Your task to perform on an android device: Empty the shopping cart on bestbuy.com. Search for "dell alienware" on bestbuy.com, select the first entry, and add it to the cart. Image 0: 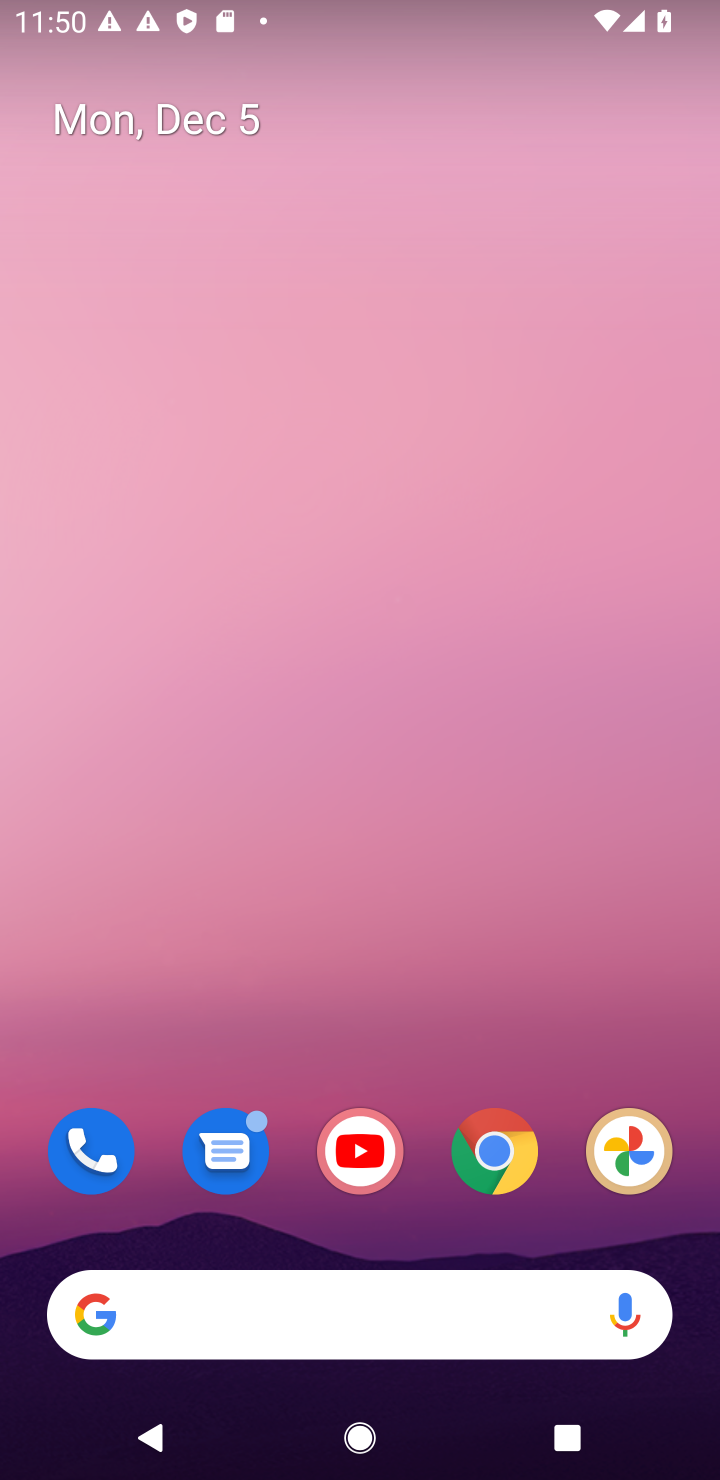
Step 0: click (492, 1160)
Your task to perform on an android device: Empty the shopping cart on bestbuy.com. Search for "dell alienware" on bestbuy.com, select the first entry, and add it to the cart. Image 1: 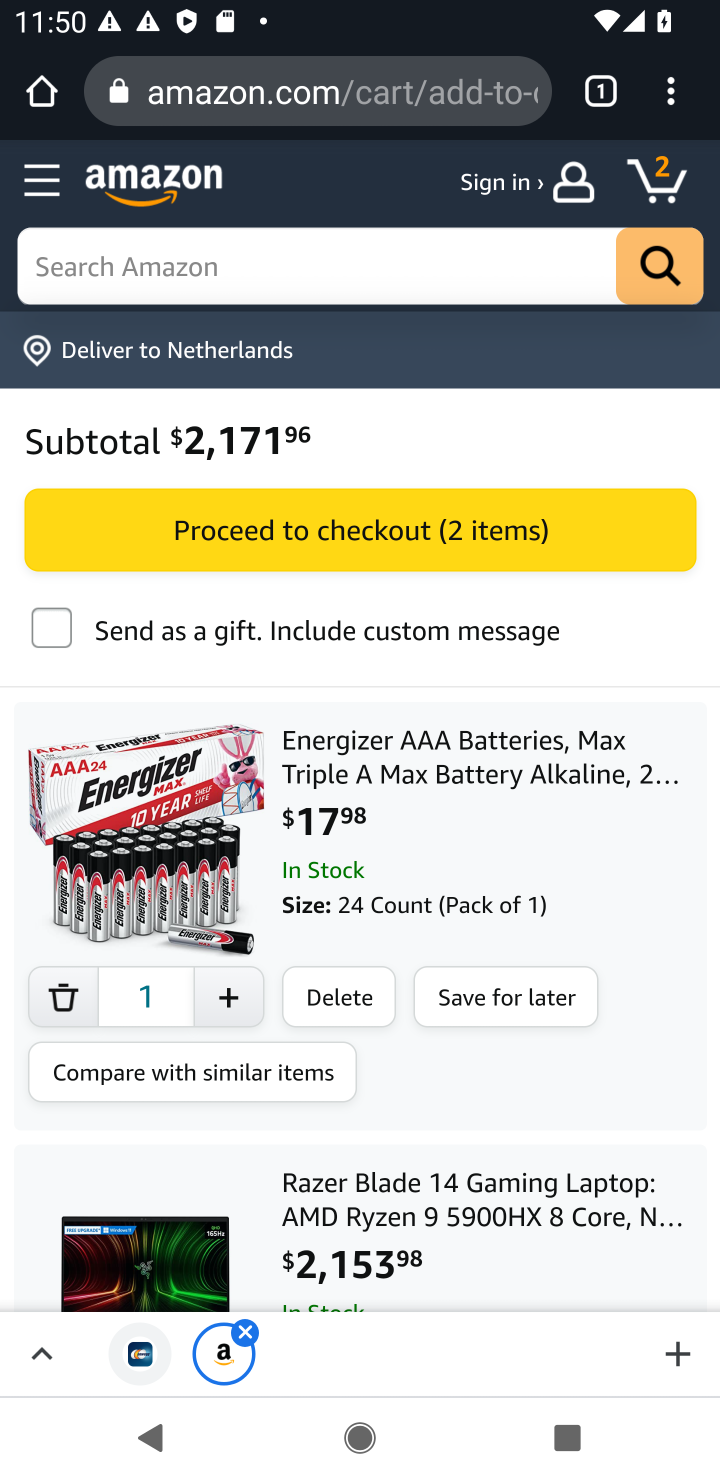
Step 1: click (250, 85)
Your task to perform on an android device: Empty the shopping cart on bestbuy.com. Search for "dell alienware" on bestbuy.com, select the first entry, and add it to the cart. Image 2: 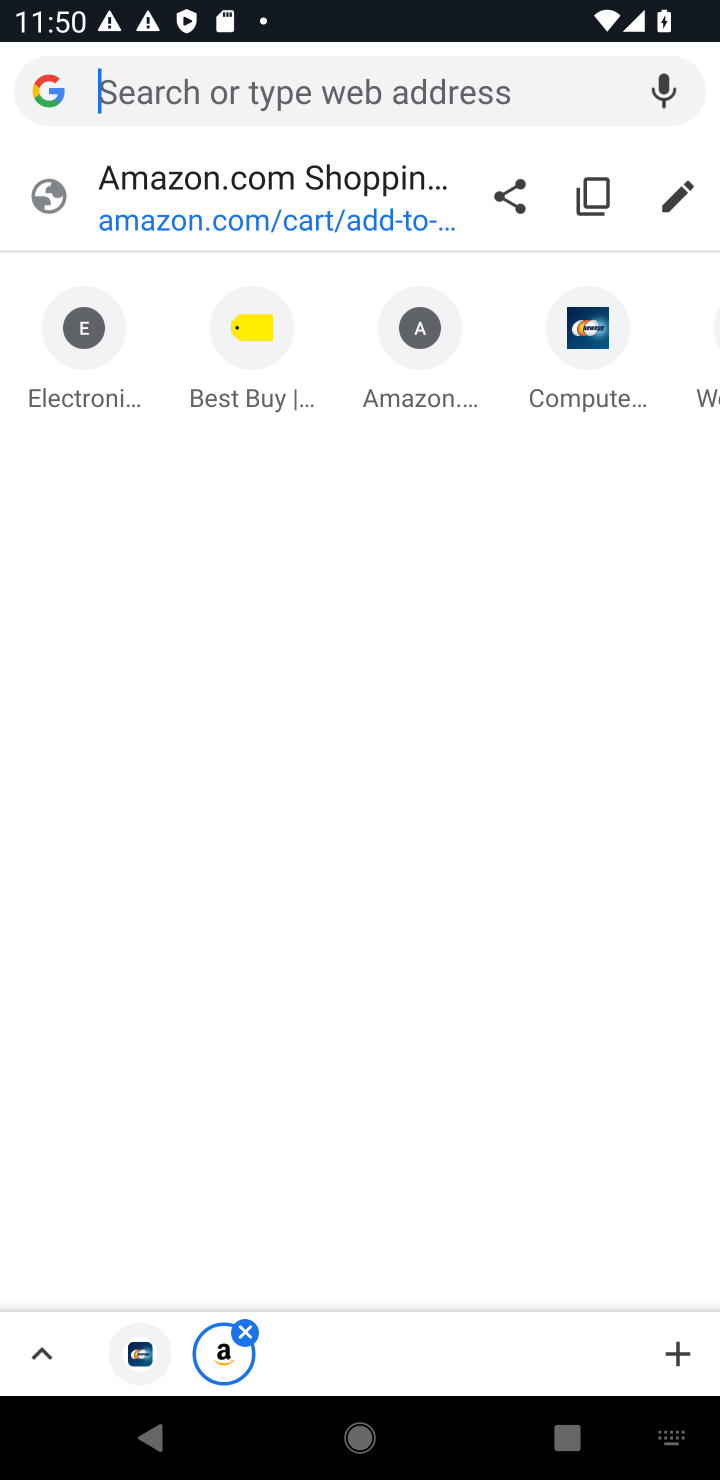
Step 2: click (243, 355)
Your task to perform on an android device: Empty the shopping cart on bestbuy.com. Search for "dell alienware" on bestbuy.com, select the first entry, and add it to the cart. Image 3: 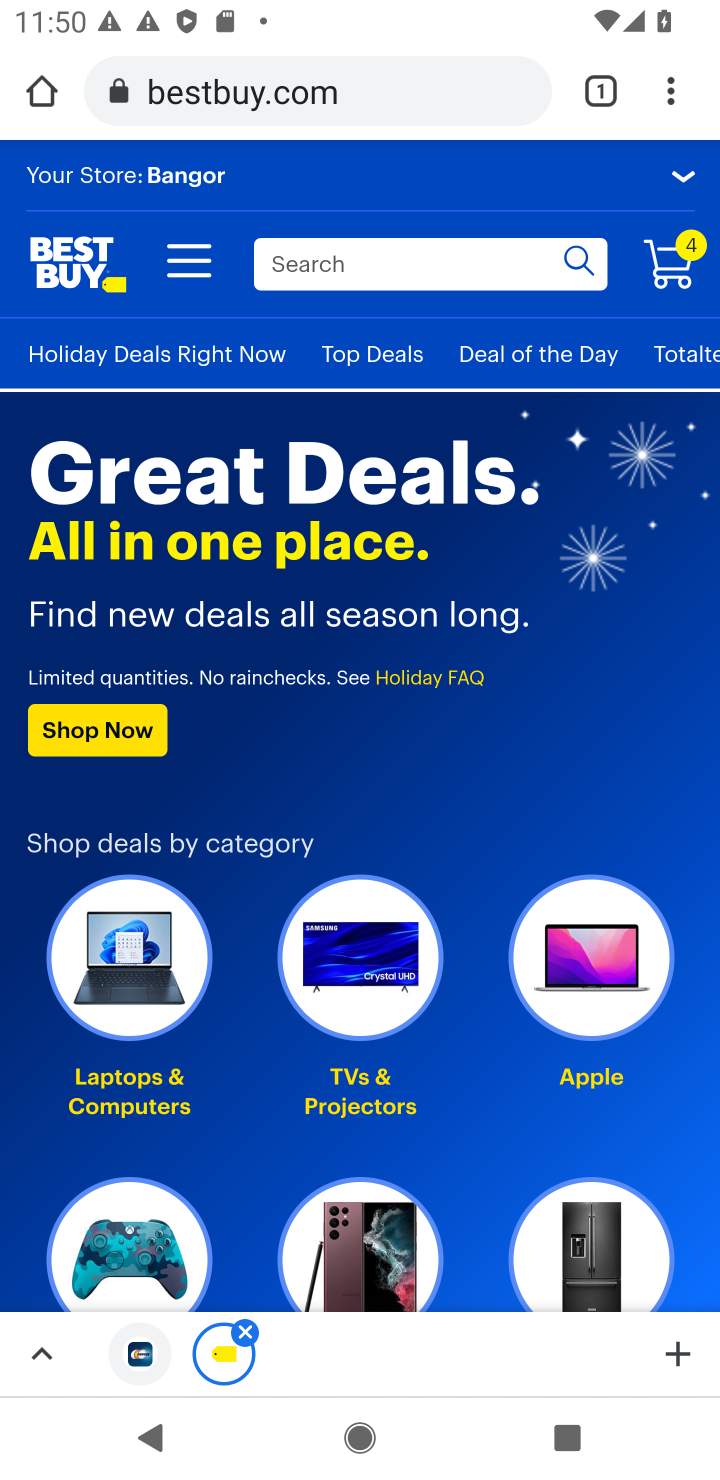
Step 3: click (673, 274)
Your task to perform on an android device: Empty the shopping cart on bestbuy.com. Search for "dell alienware" on bestbuy.com, select the first entry, and add it to the cart. Image 4: 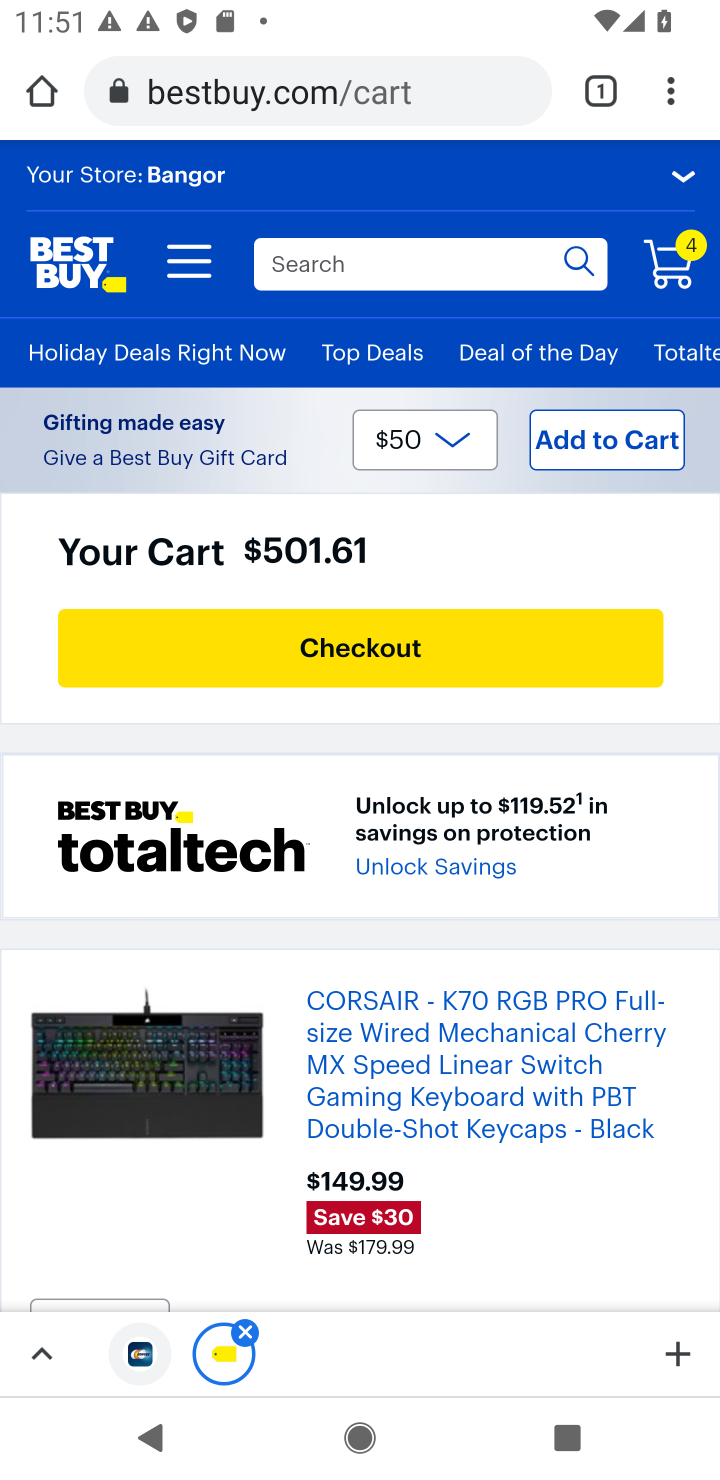
Step 4: drag from (274, 854) to (302, 362)
Your task to perform on an android device: Empty the shopping cart on bestbuy.com. Search for "dell alienware" on bestbuy.com, select the first entry, and add it to the cart. Image 5: 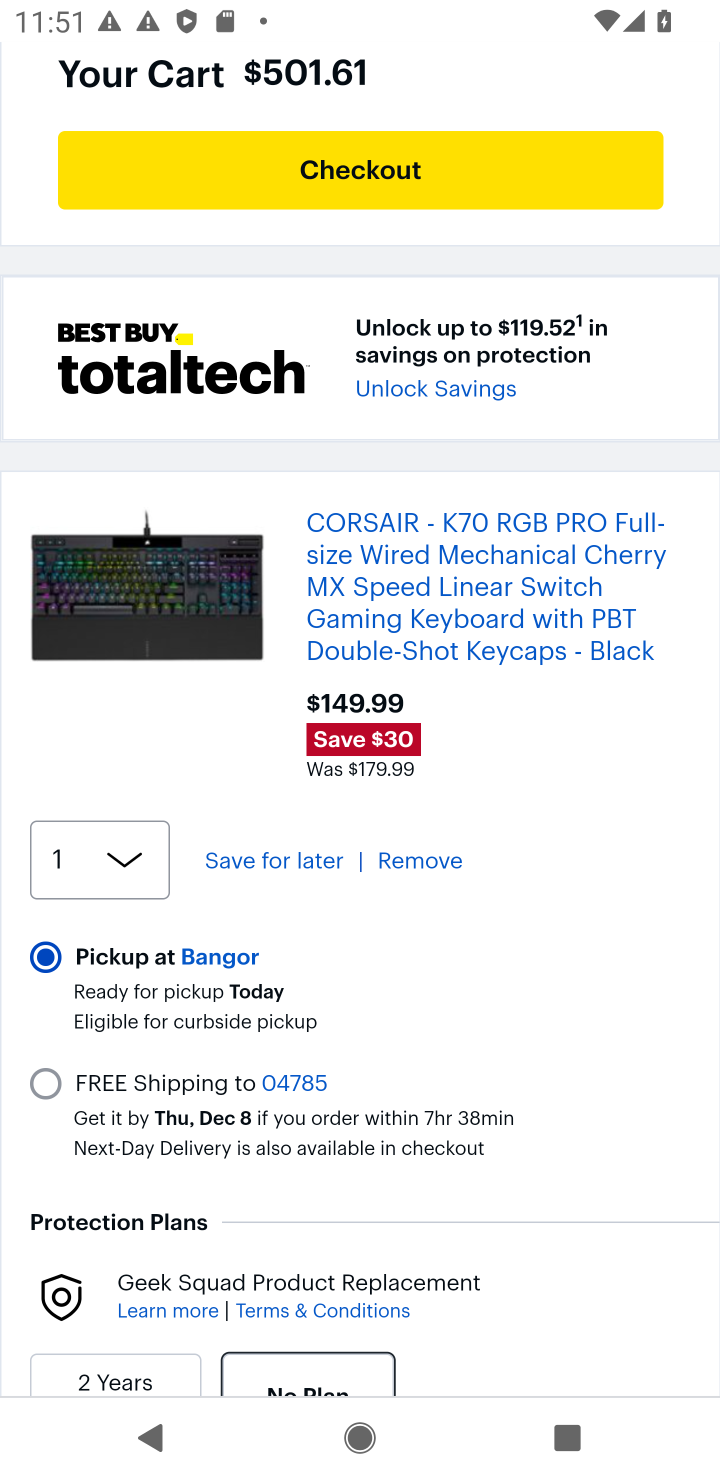
Step 5: click (409, 860)
Your task to perform on an android device: Empty the shopping cart on bestbuy.com. Search for "dell alienware" on bestbuy.com, select the first entry, and add it to the cart. Image 6: 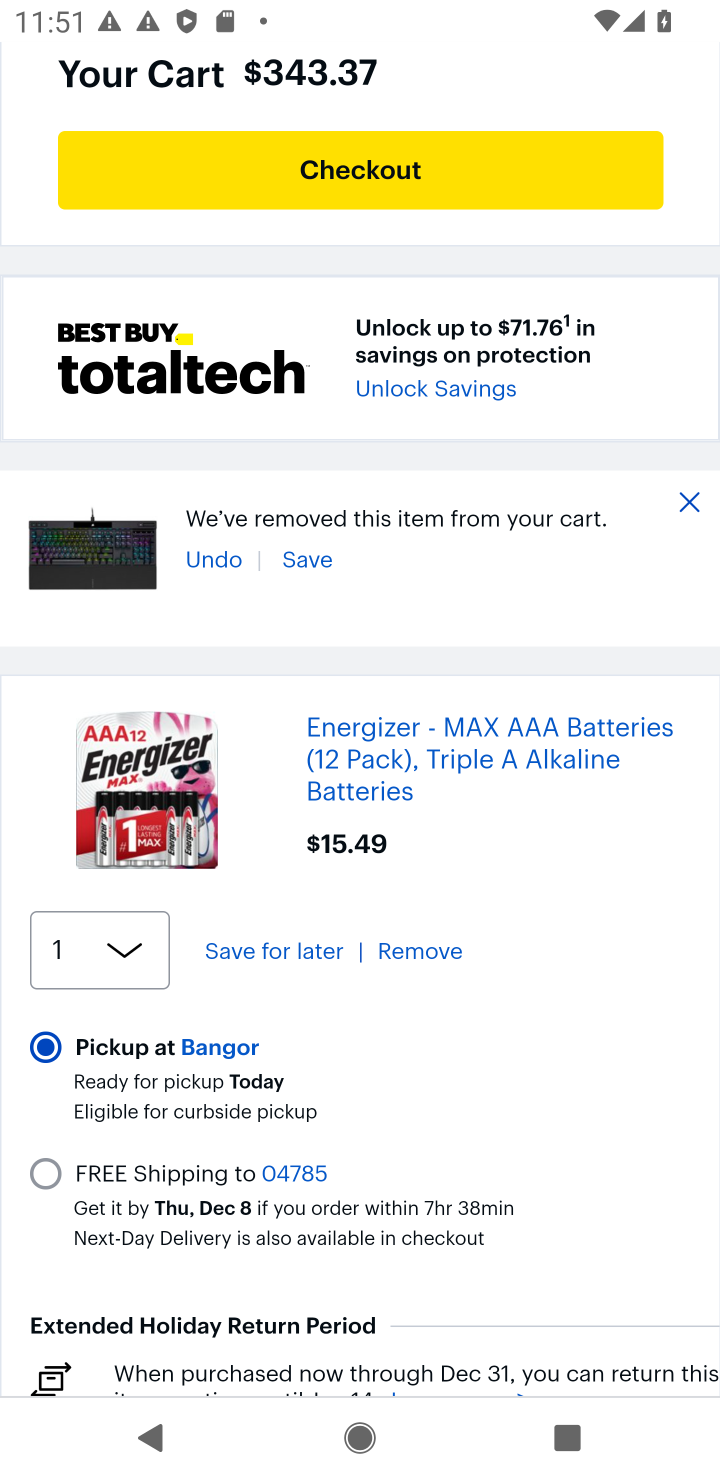
Step 6: click (409, 934)
Your task to perform on an android device: Empty the shopping cart on bestbuy.com. Search for "dell alienware" on bestbuy.com, select the first entry, and add it to the cart. Image 7: 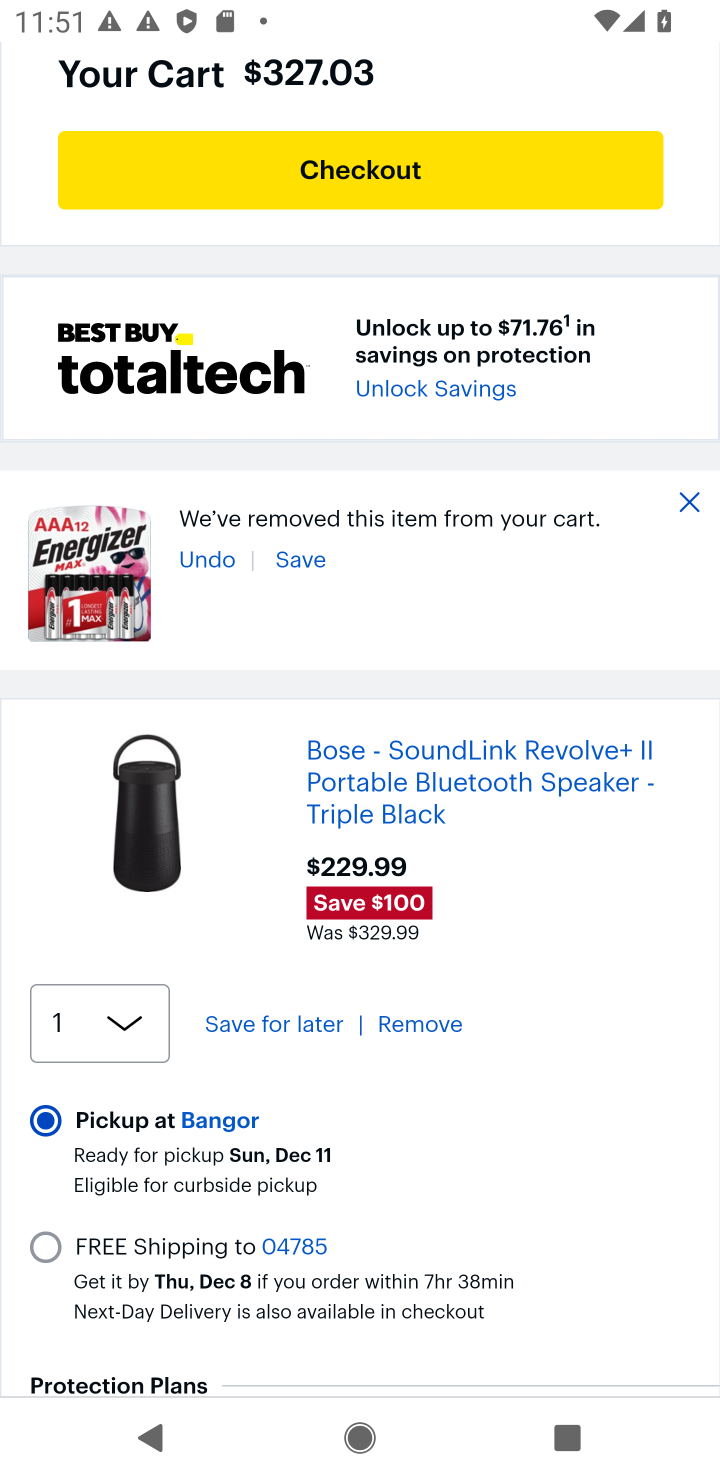
Step 7: click (416, 1020)
Your task to perform on an android device: Empty the shopping cart on bestbuy.com. Search for "dell alienware" on bestbuy.com, select the first entry, and add it to the cart. Image 8: 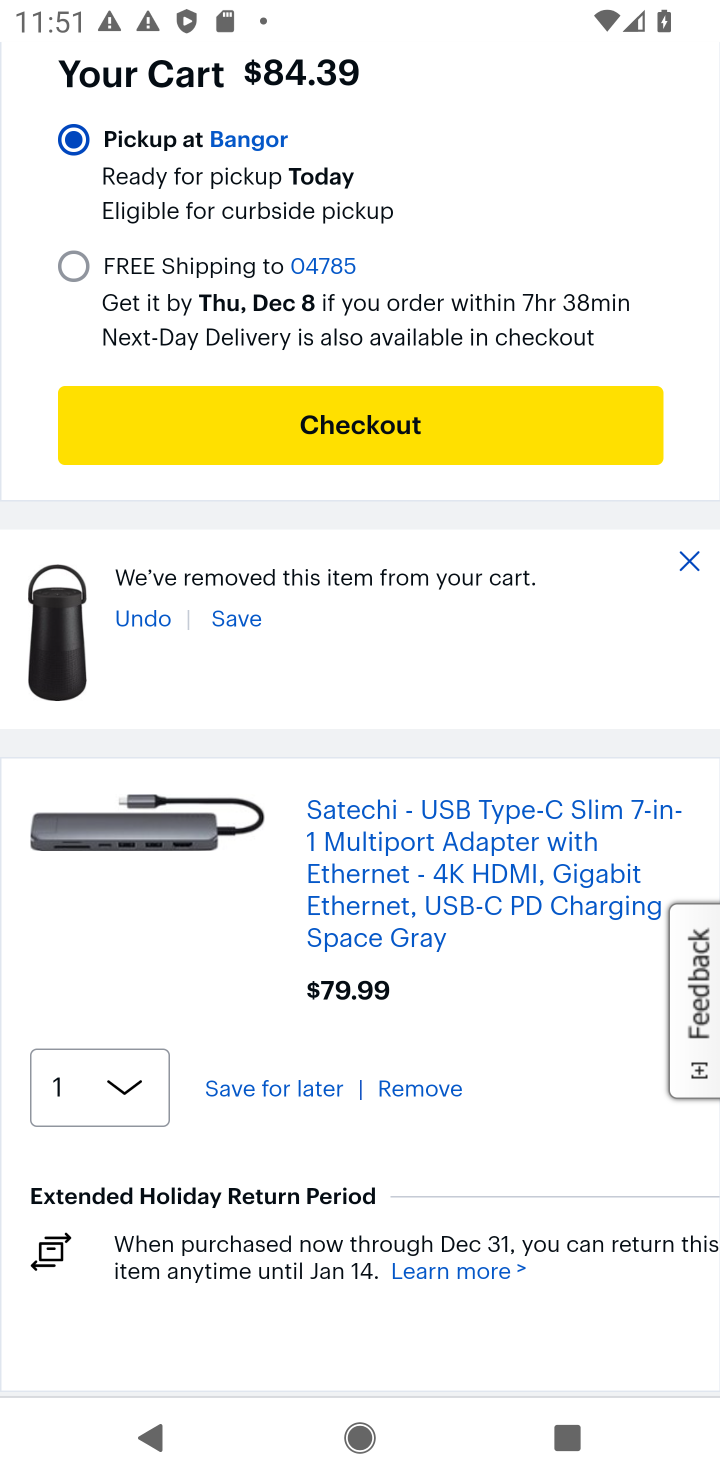
Step 8: click (418, 1088)
Your task to perform on an android device: Empty the shopping cart on bestbuy.com. Search for "dell alienware" on bestbuy.com, select the first entry, and add it to the cart. Image 9: 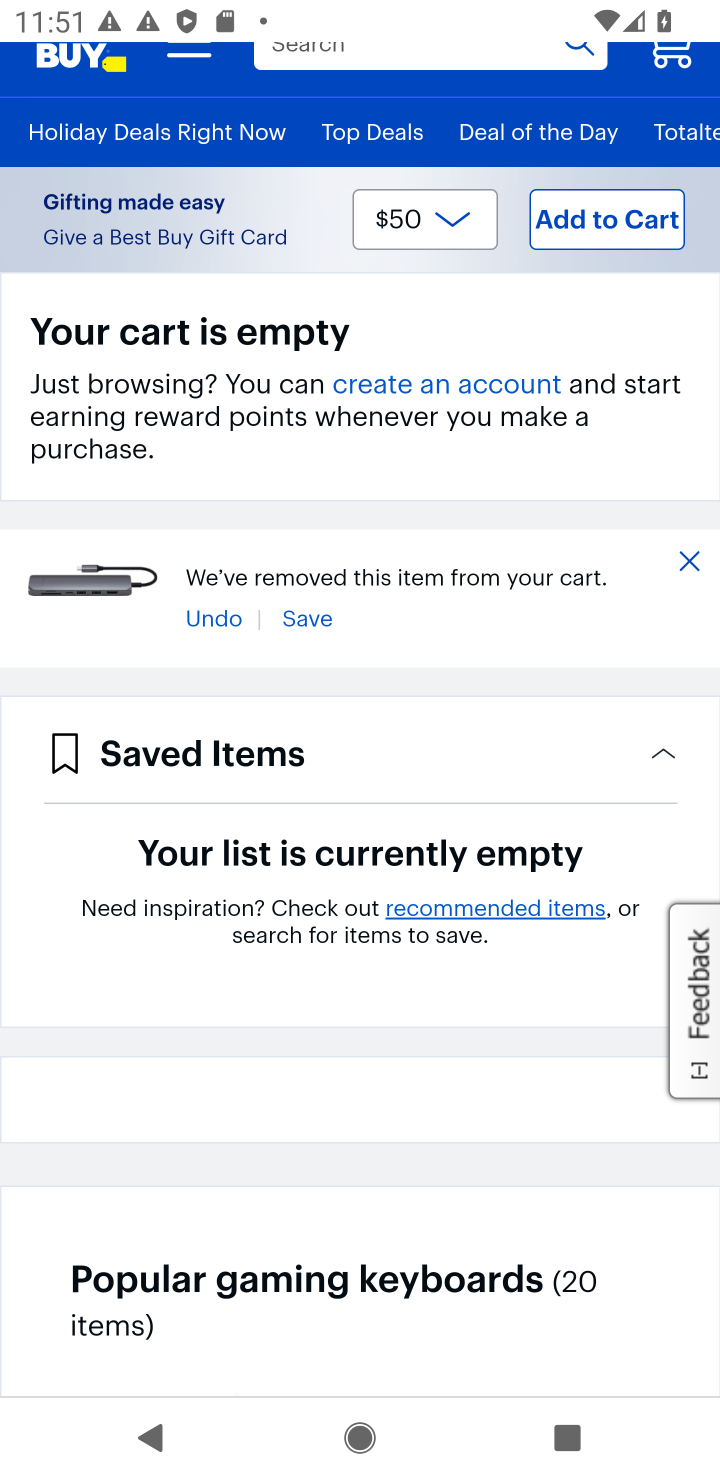
Step 9: drag from (285, 185) to (307, 434)
Your task to perform on an android device: Empty the shopping cart on bestbuy.com. Search for "dell alienware" on bestbuy.com, select the first entry, and add it to the cart. Image 10: 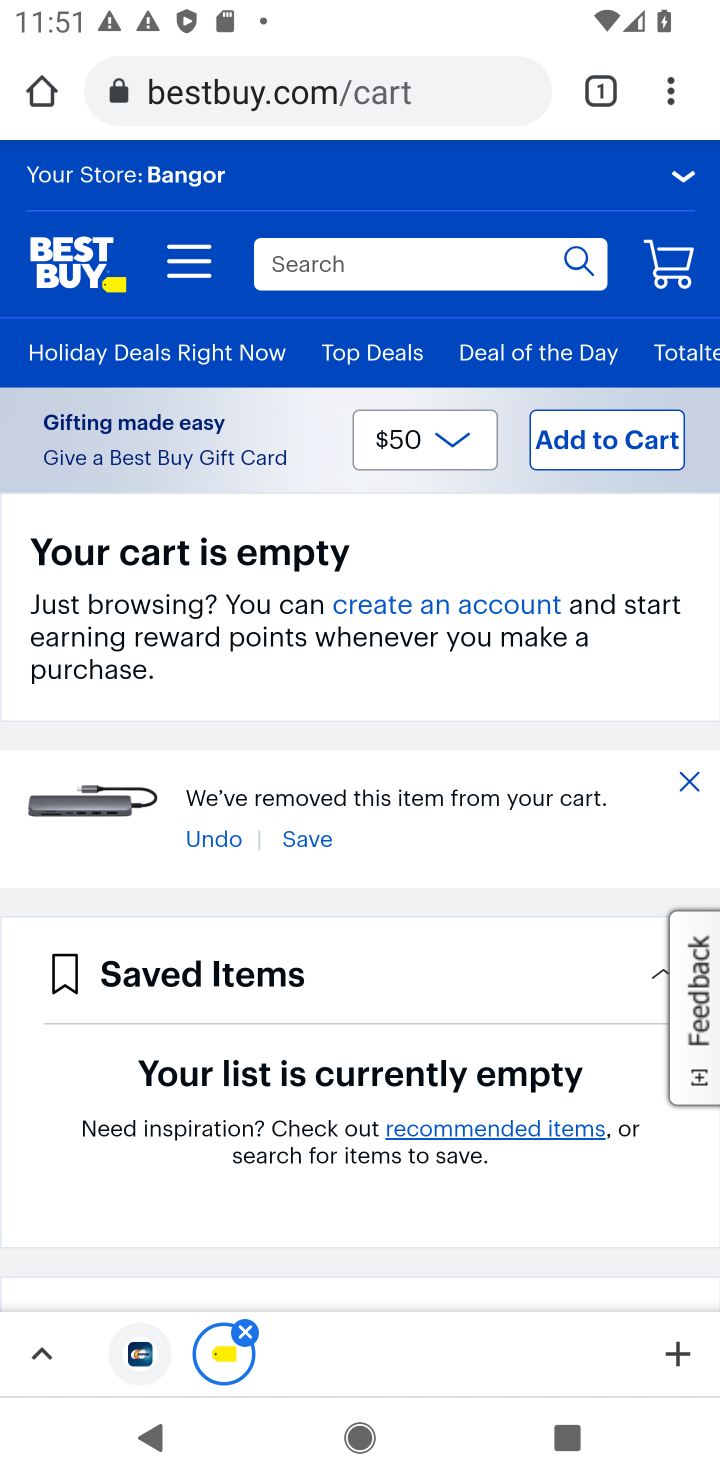
Step 10: click (341, 269)
Your task to perform on an android device: Empty the shopping cart on bestbuy.com. Search for "dell alienware" on bestbuy.com, select the first entry, and add it to the cart. Image 11: 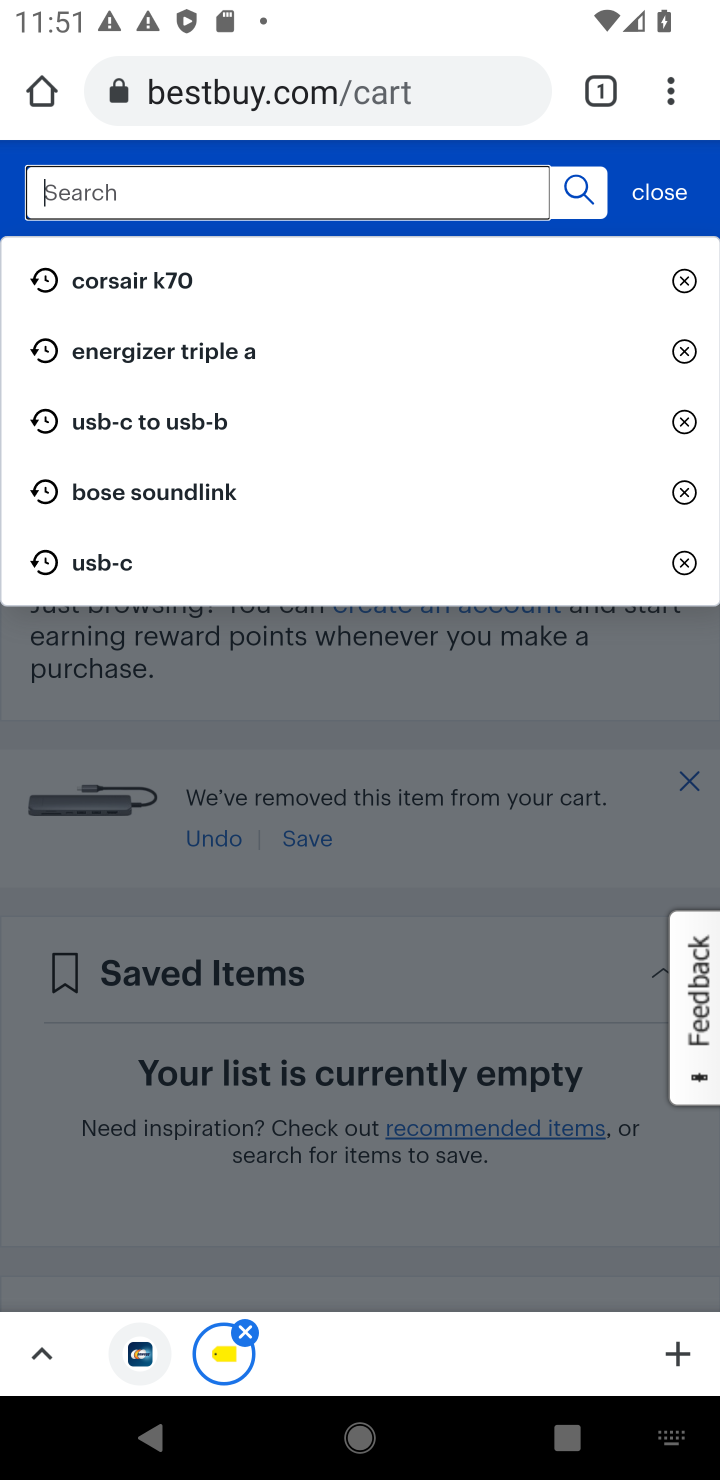
Step 11: type "dell alienware"
Your task to perform on an android device: Empty the shopping cart on bestbuy.com. Search for "dell alienware" on bestbuy.com, select the first entry, and add it to the cart. Image 12: 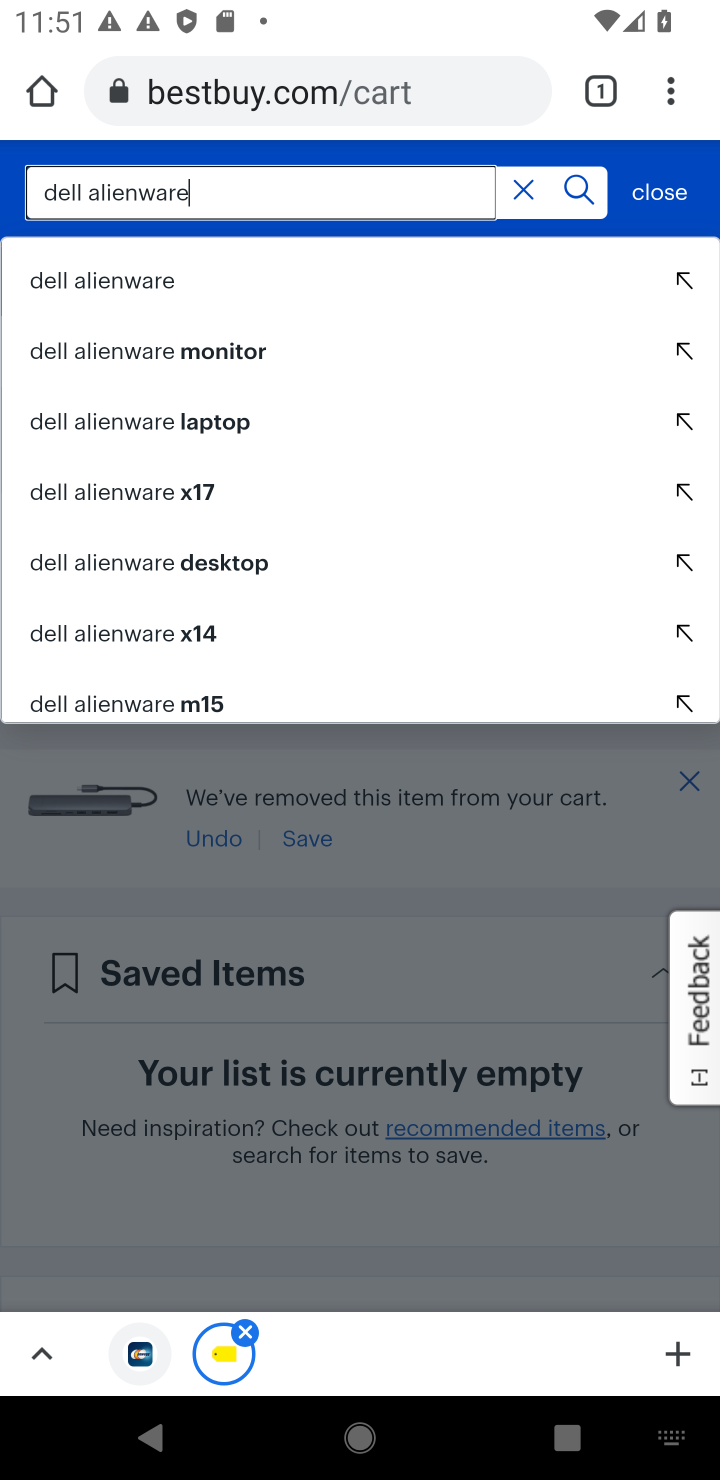
Step 12: click (121, 273)
Your task to perform on an android device: Empty the shopping cart on bestbuy.com. Search for "dell alienware" on bestbuy.com, select the first entry, and add it to the cart. Image 13: 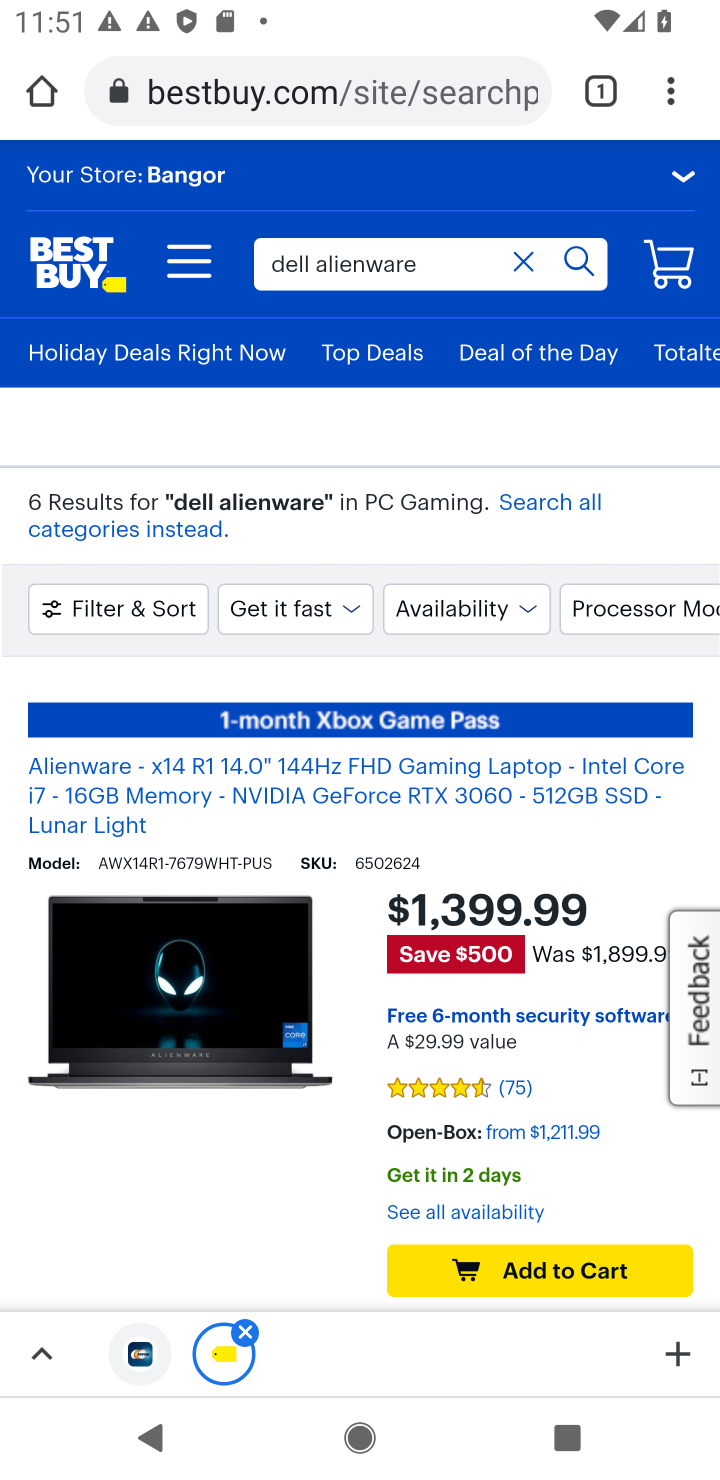
Step 13: click (523, 1259)
Your task to perform on an android device: Empty the shopping cart on bestbuy.com. Search for "dell alienware" on bestbuy.com, select the first entry, and add it to the cart. Image 14: 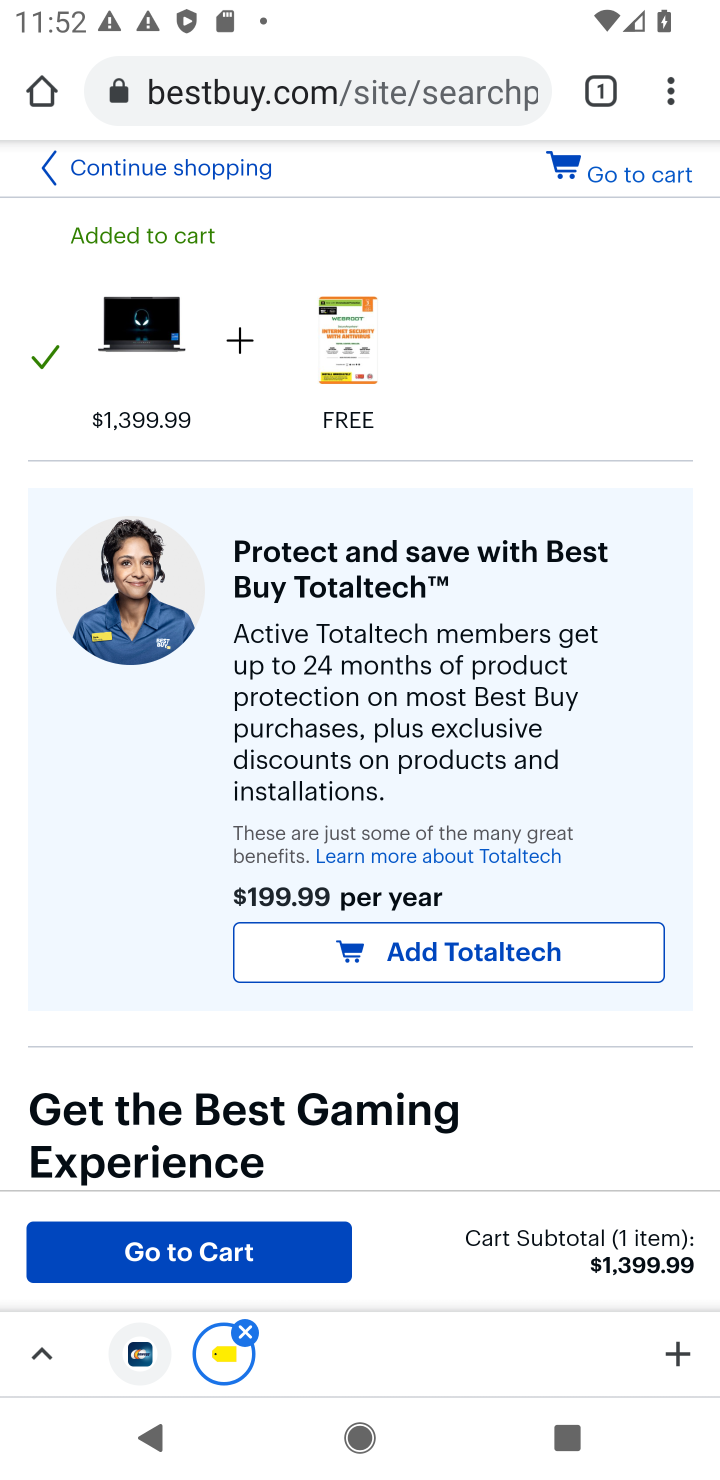
Step 14: task complete